Your task to perform on an android device: Go to sound settings Image 0: 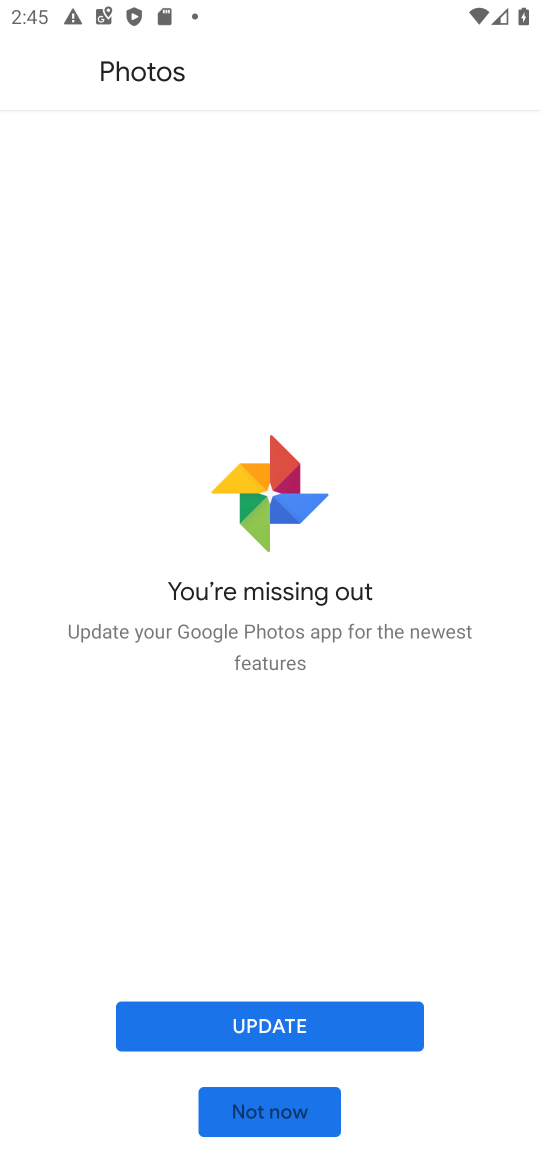
Step 0: press home button
Your task to perform on an android device: Go to sound settings Image 1: 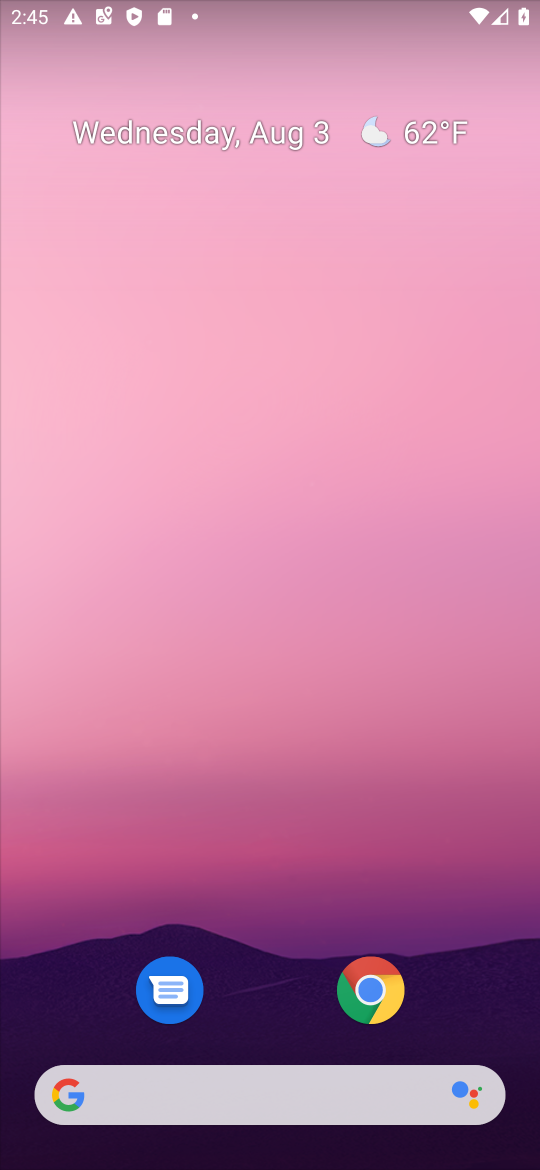
Step 1: drag from (183, 1076) to (191, 216)
Your task to perform on an android device: Go to sound settings Image 2: 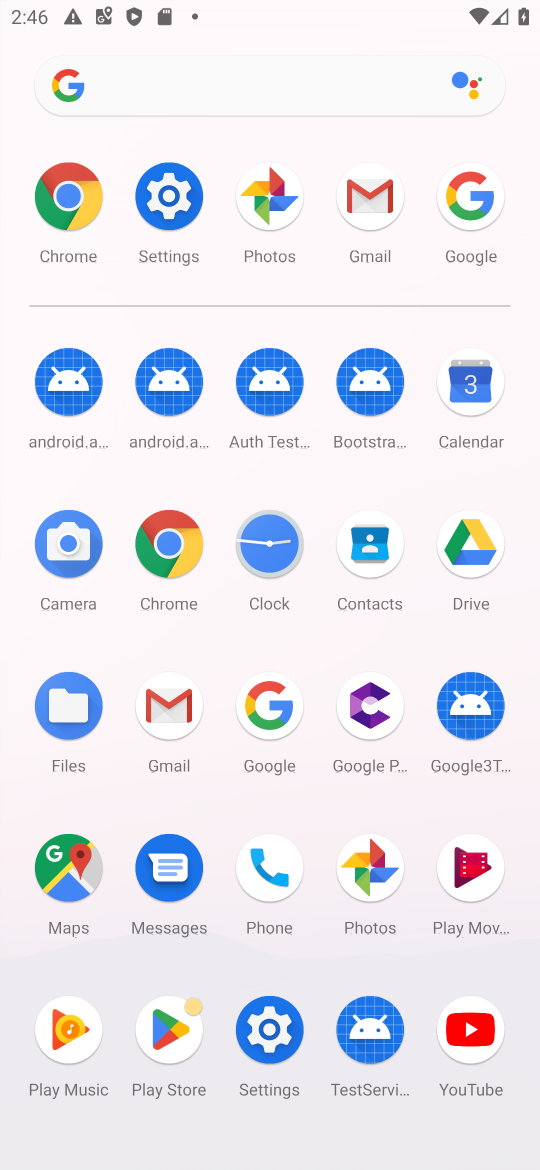
Step 2: click (174, 189)
Your task to perform on an android device: Go to sound settings Image 3: 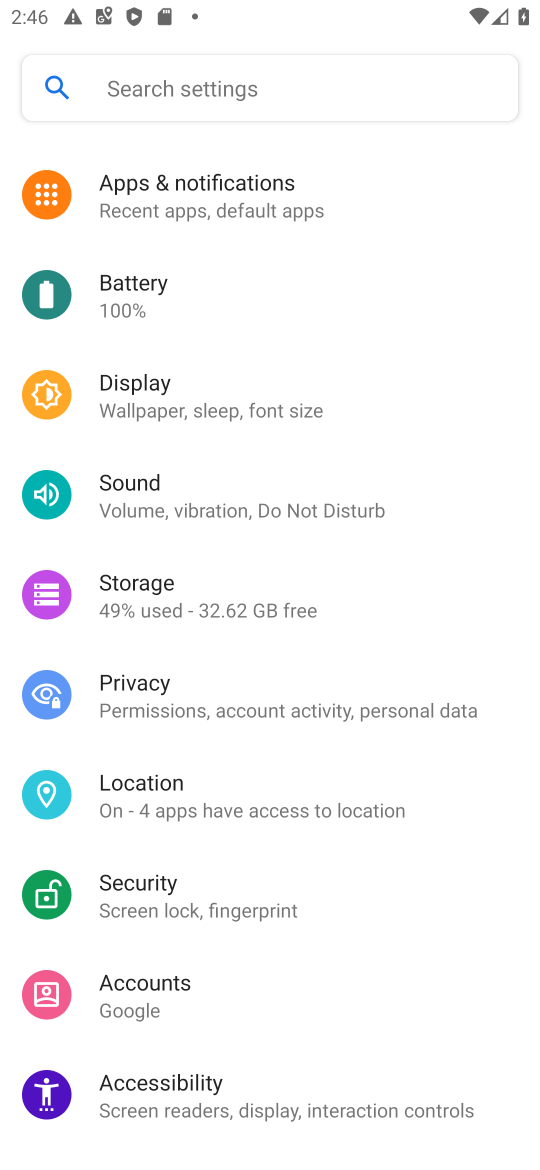
Step 3: click (148, 508)
Your task to perform on an android device: Go to sound settings Image 4: 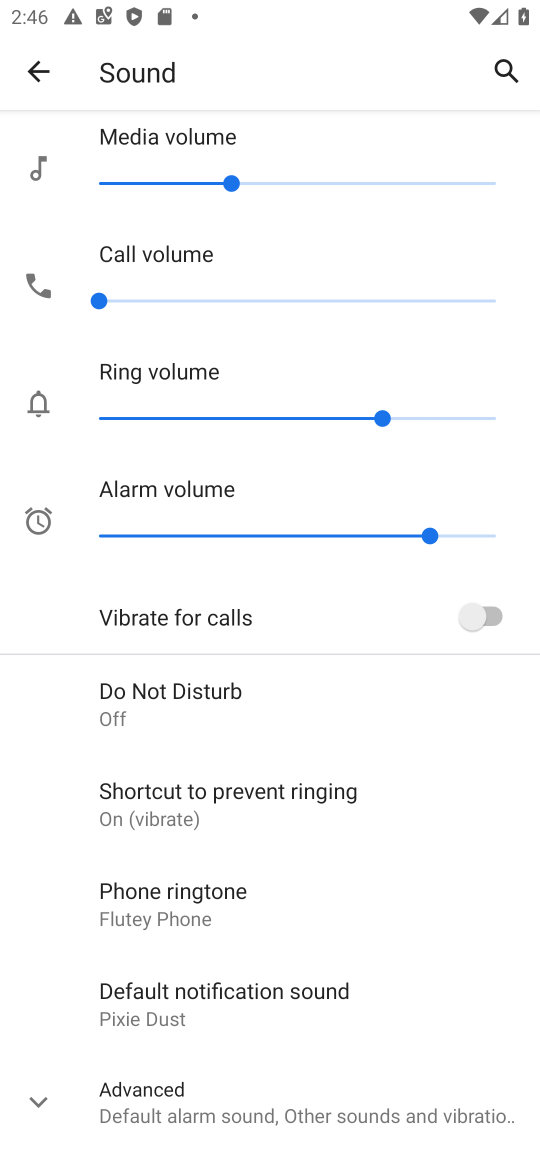
Step 4: click (157, 1107)
Your task to perform on an android device: Go to sound settings Image 5: 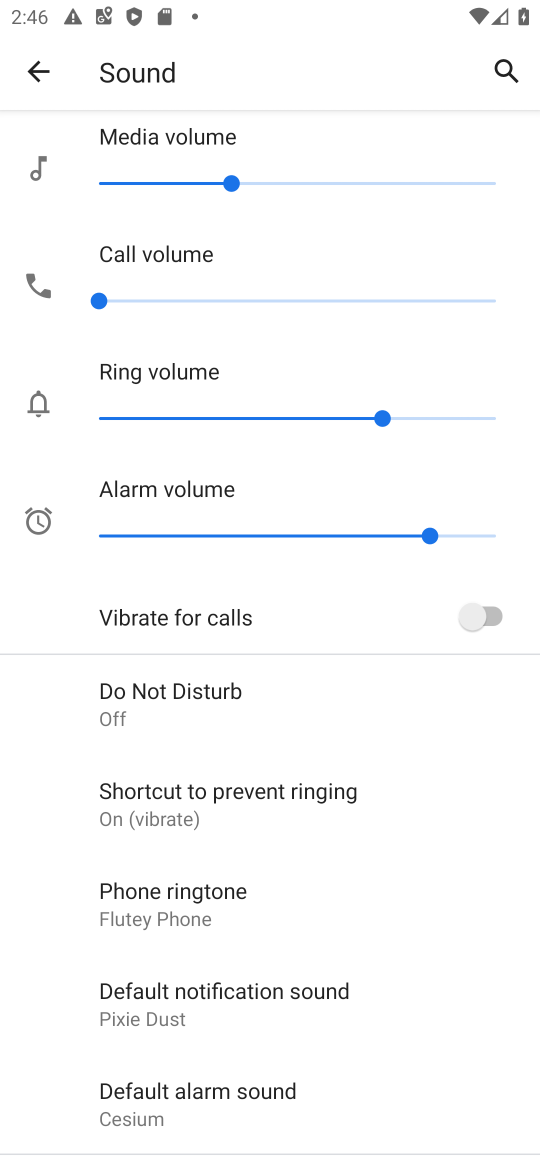
Step 5: task complete